Your task to perform on an android device: turn on the 24-hour format for clock Image 0: 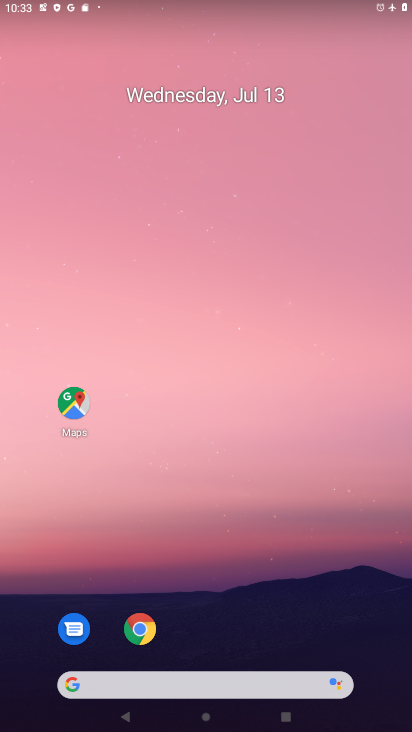
Step 0: click (299, 638)
Your task to perform on an android device: turn on the 24-hour format for clock Image 1: 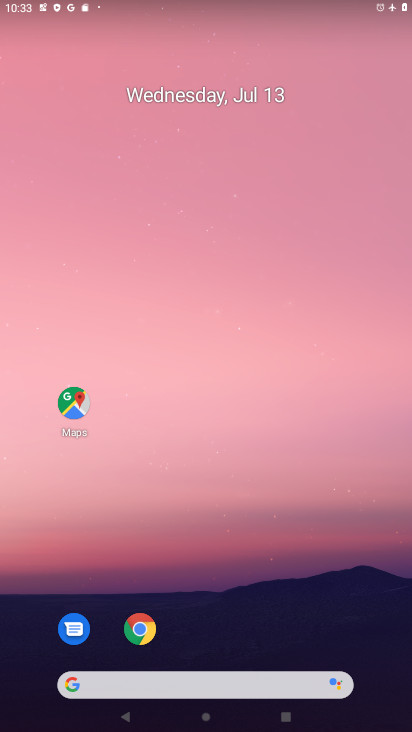
Step 1: drag from (299, 638) to (290, 152)
Your task to perform on an android device: turn on the 24-hour format for clock Image 2: 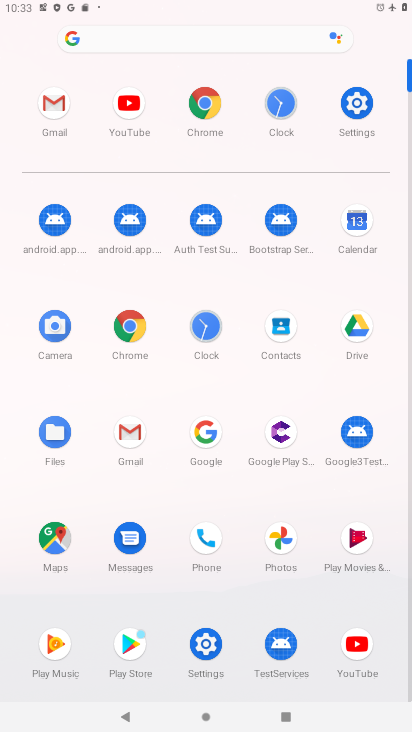
Step 2: click (293, 122)
Your task to perform on an android device: turn on the 24-hour format for clock Image 3: 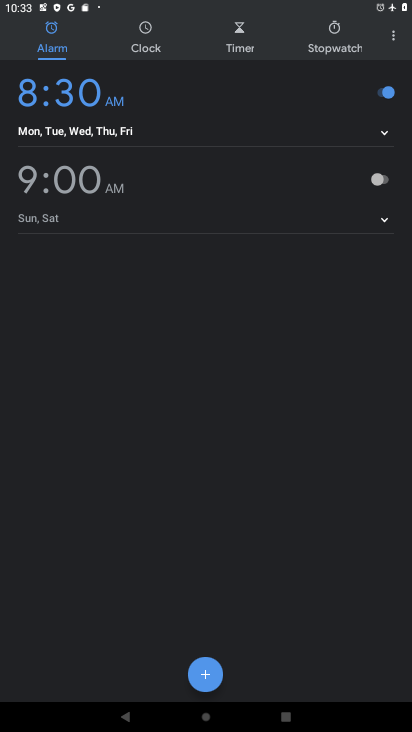
Step 3: click (386, 36)
Your task to perform on an android device: turn on the 24-hour format for clock Image 4: 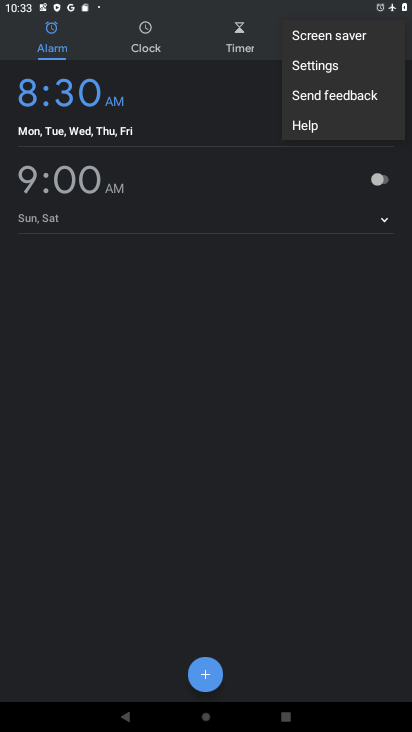
Step 4: click (326, 73)
Your task to perform on an android device: turn on the 24-hour format for clock Image 5: 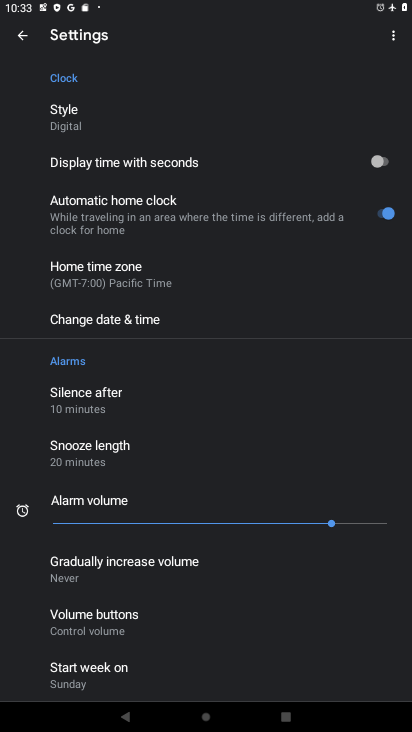
Step 5: click (190, 322)
Your task to perform on an android device: turn on the 24-hour format for clock Image 6: 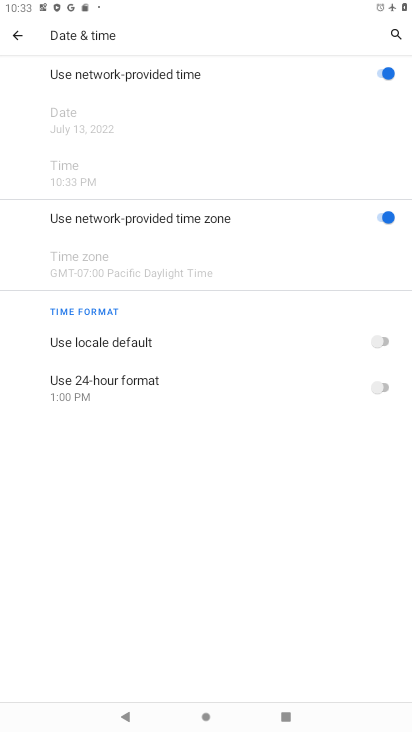
Step 6: click (376, 341)
Your task to perform on an android device: turn on the 24-hour format for clock Image 7: 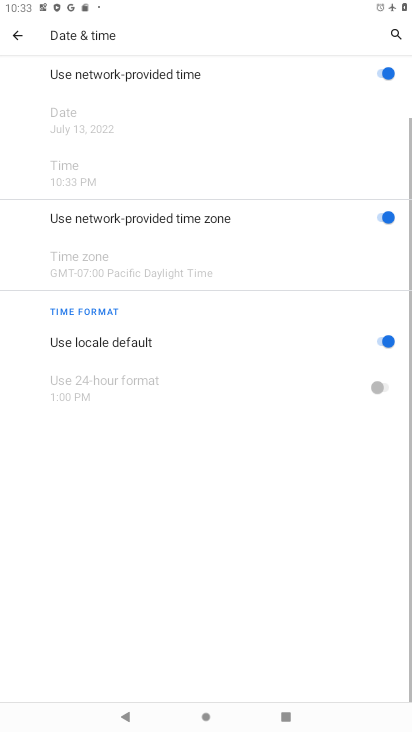
Step 7: click (376, 376)
Your task to perform on an android device: turn on the 24-hour format for clock Image 8: 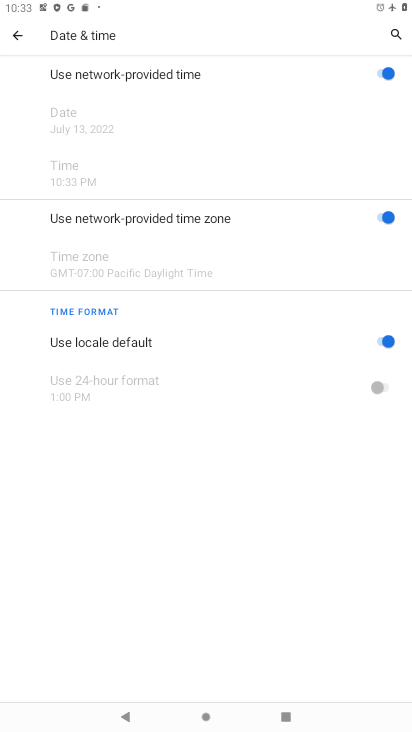
Step 8: task complete